Your task to perform on an android device: toggle sleep mode Image 0: 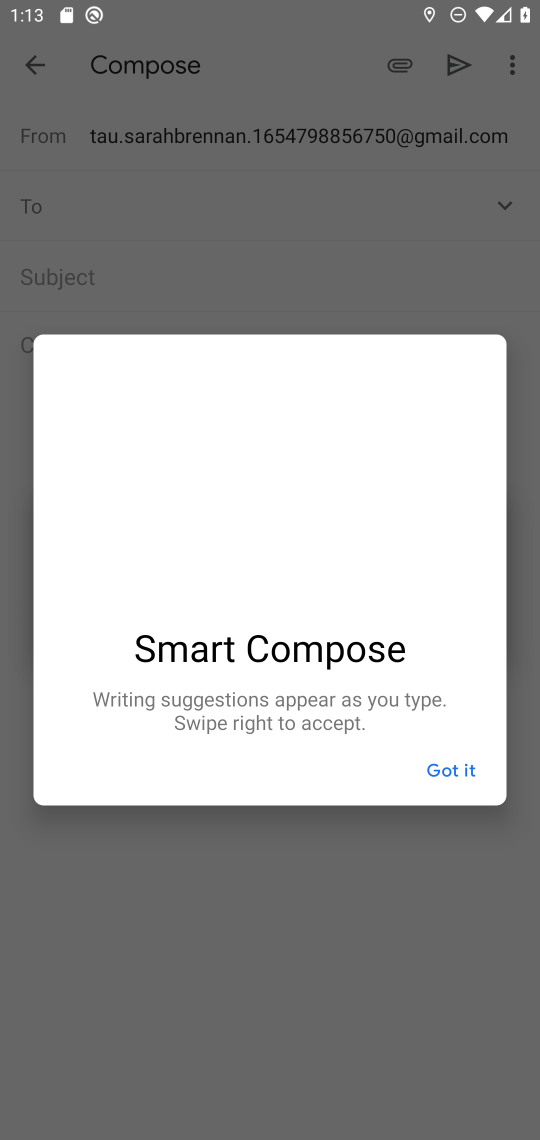
Step 0: press home button
Your task to perform on an android device: toggle sleep mode Image 1: 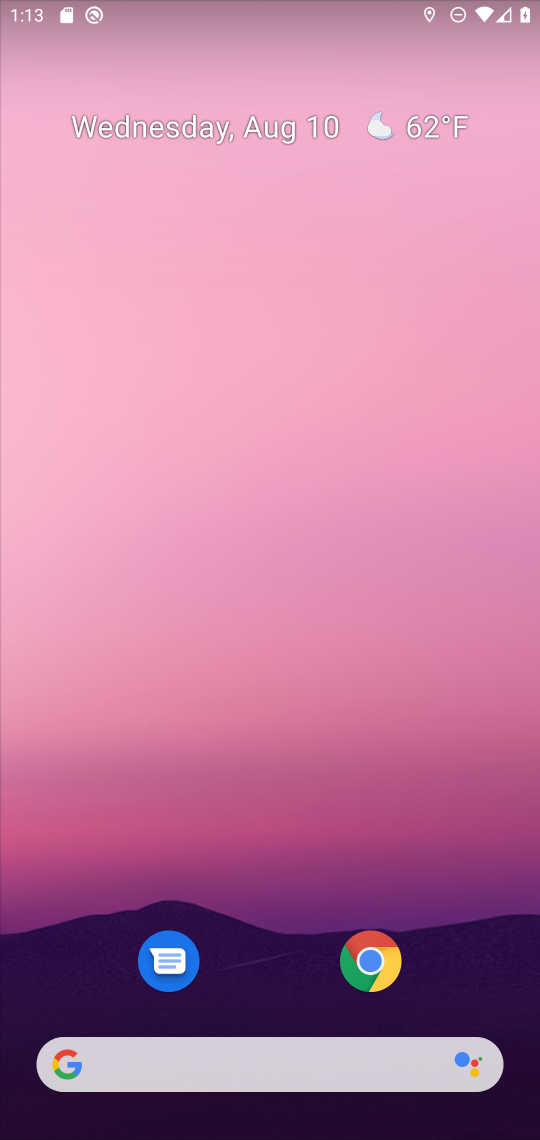
Step 1: drag from (242, 917) to (219, 144)
Your task to perform on an android device: toggle sleep mode Image 2: 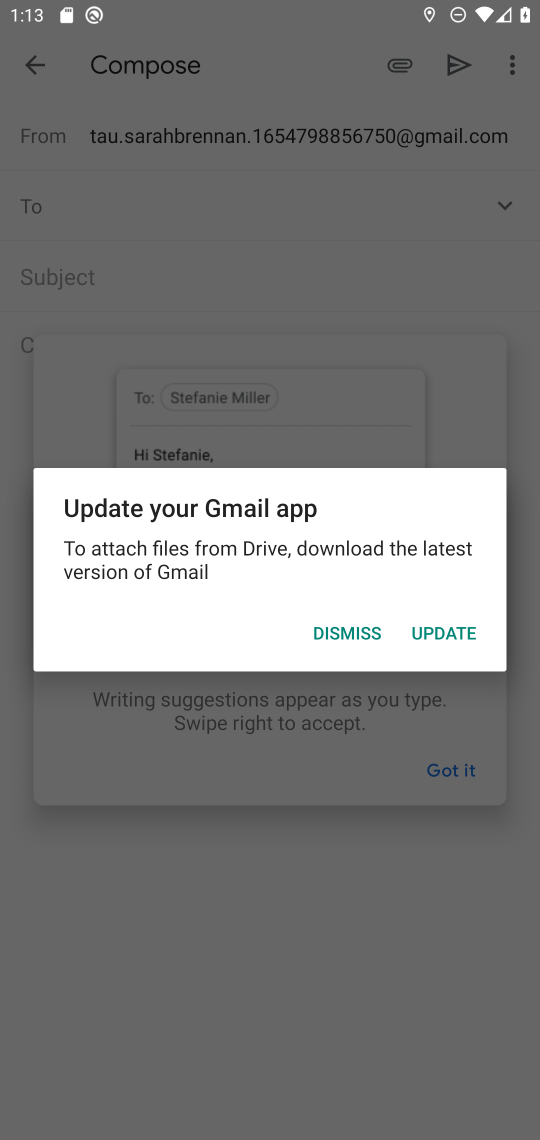
Step 2: press home button
Your task to perform on an android device: toggle sleep mode Image 3: 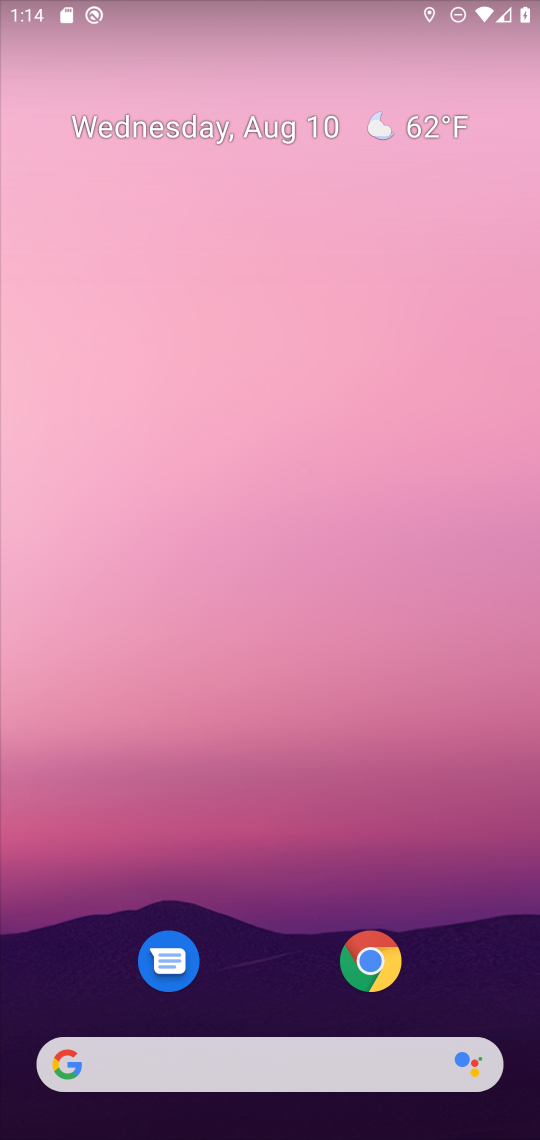
Step 3: drag from (281, 952) to (257, 145)
Your task to perform on an android device: toggle sleep mode Image 4: 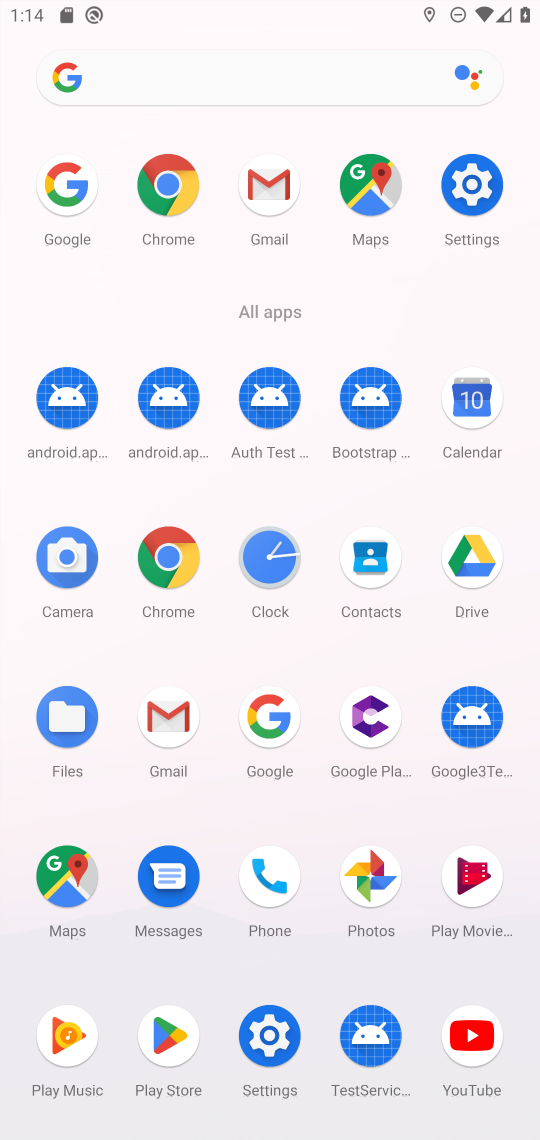
Step 4: click (469, 190)
Your task to perform on an android device: toggle sleep mode Image 5: 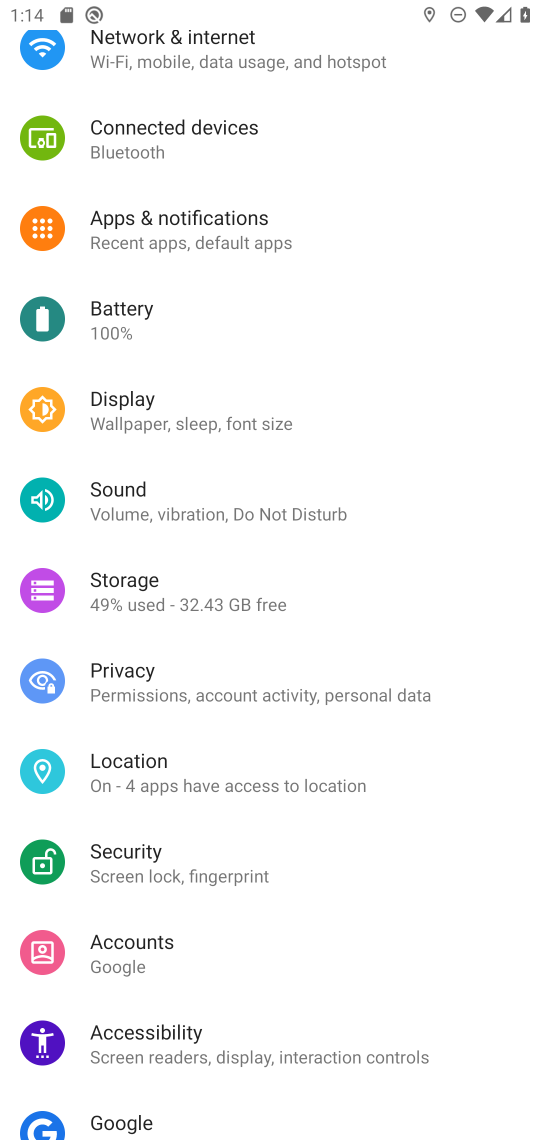
Step 5: click (133, 399)
Your task to perform on an android device: toggle sleep mode Image 6: 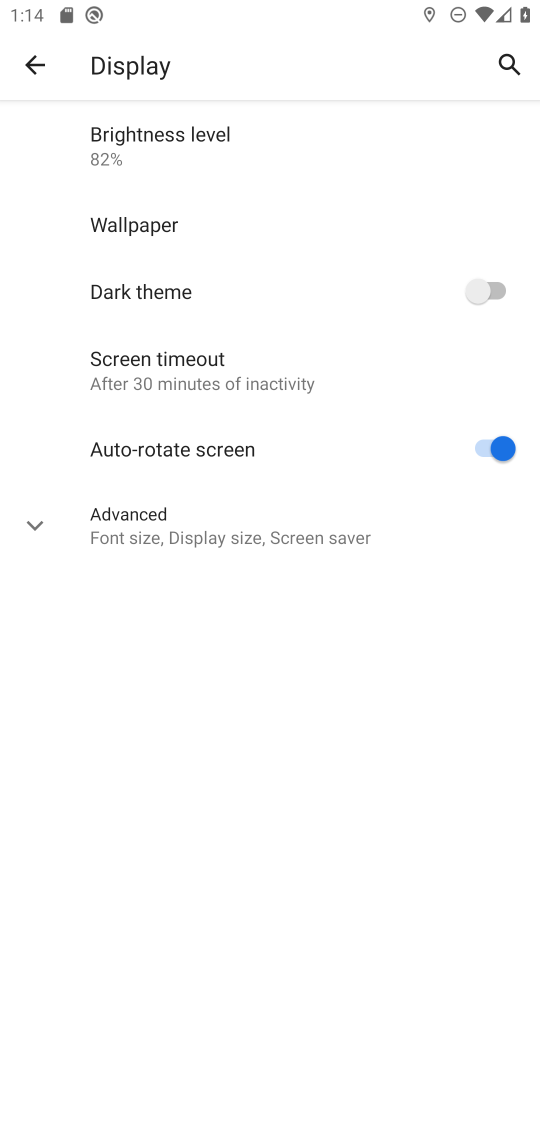
Step 6: task complete